Your task to perform on an android device: turn smart compose on in the gmail app Image 0: 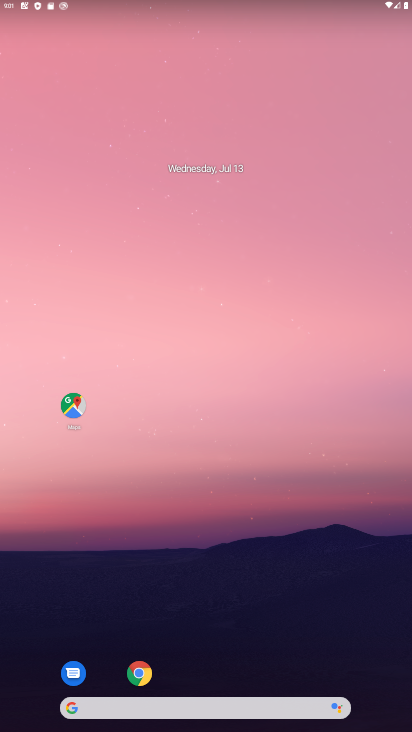
Step 0: drag from (190, 678) to (175, 59)
Your task to perform on an android device: turn smart compose on in the gmail app Image 1: 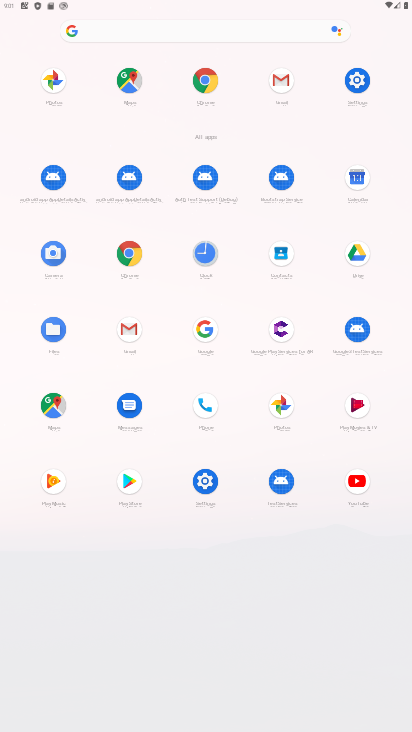
Step 1: click (275, 79)
Your task to perform on an android device: turn smart compose on in the gmail app Image 2: 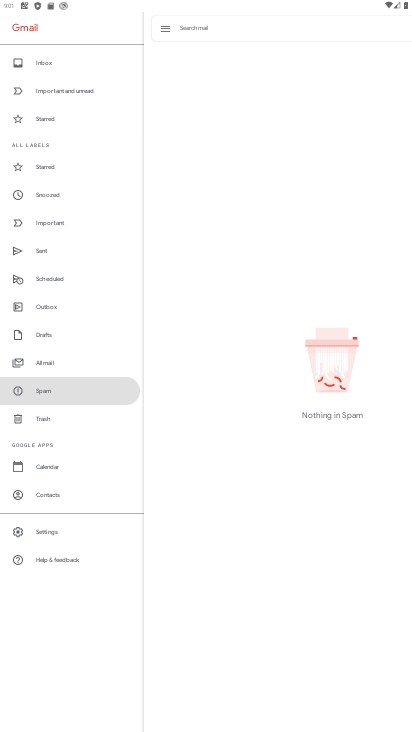
Step 2: click (50, 530)
Your task to perform on an android device: turn smart compose on in the gmail app Image 3: 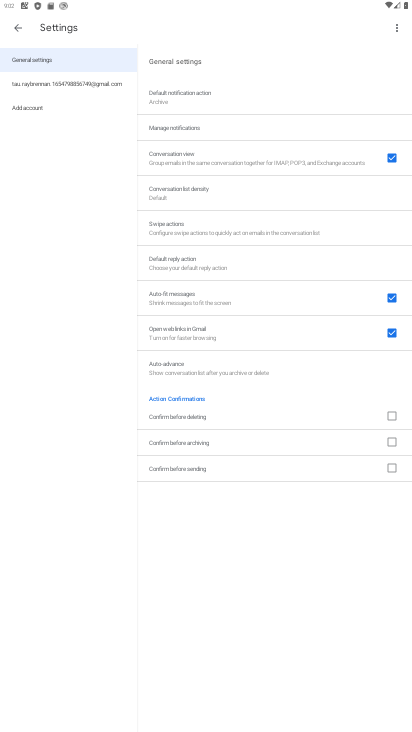
Step 3: click (95, 80)
Your task to perform on an android device: turn smart compose on in the gmail app Image 4: 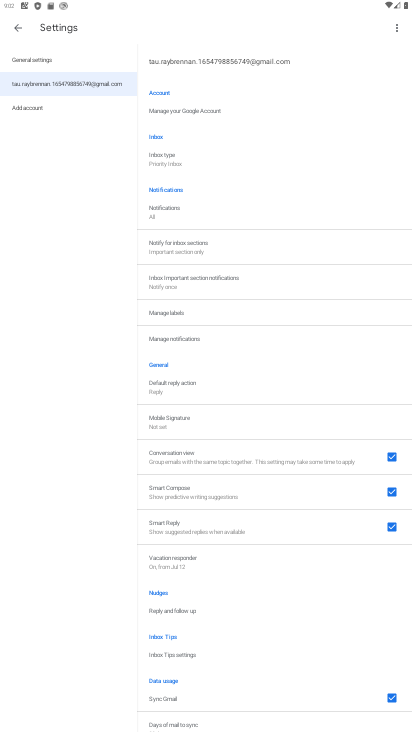
Step 4: task complete